Your task to perform on an android device: toggle wifi Image 0: 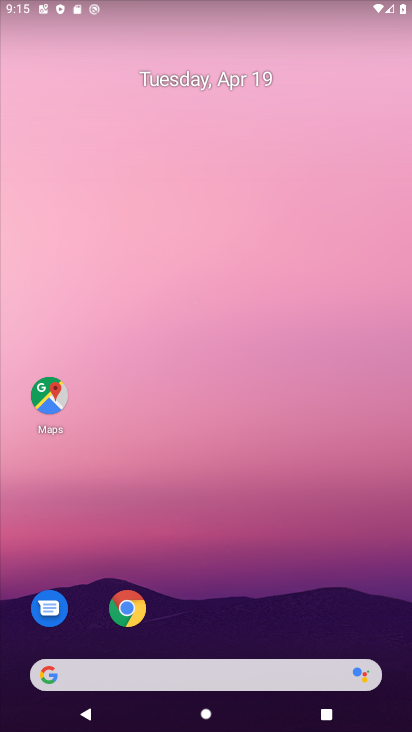
Step 0: drag from (392, 643) to (323, 71)
Your task to perform on an android device: toggle wifi Image 1: 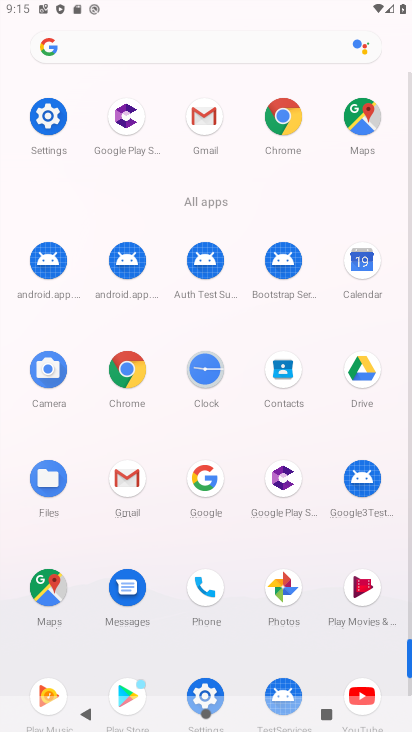
Step 1: click (408, 686)
Your task to perform on an android device: toggle wifi Image 2: 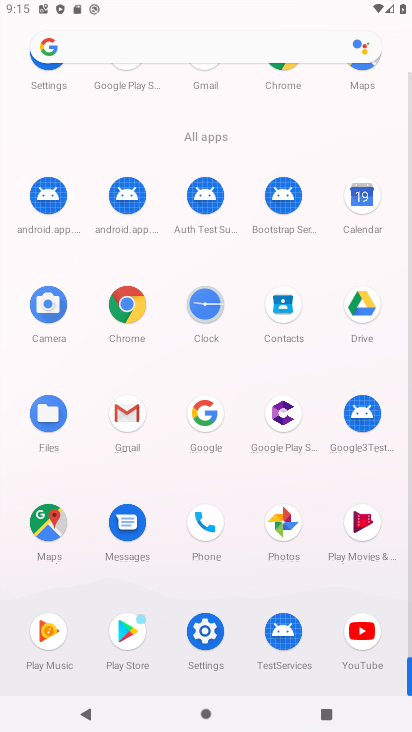
Step 2: click (204, 629)
Your task to perform on an android device: toggle wifi Image 3: 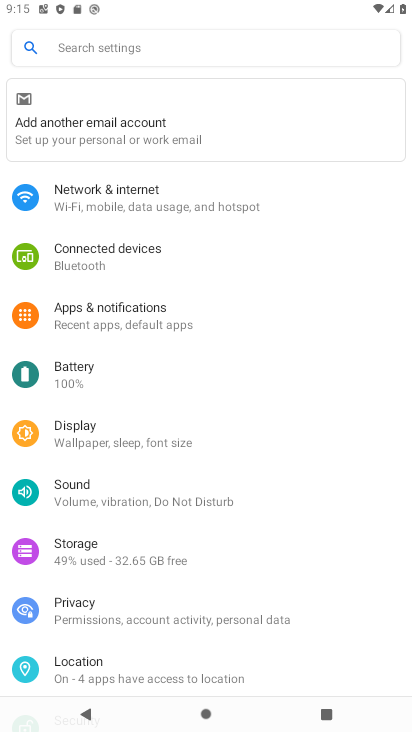
Step 3: click (125, 191)
Your task to perform on an android device: toggle wifi Image 4: 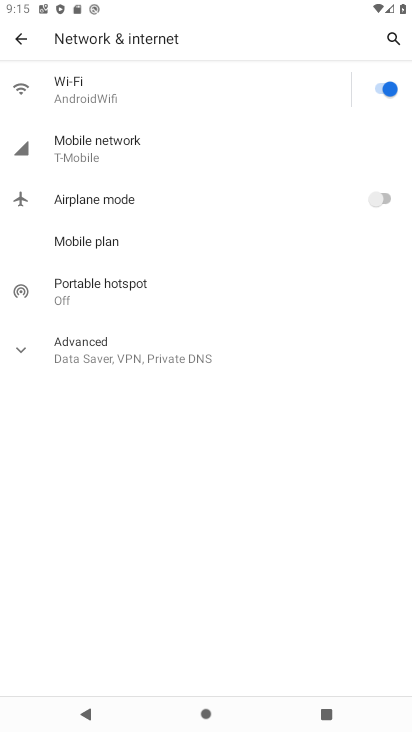
Step 4: click (375, 80)
Your task to perform on an android device: toggle wifi Image 5: 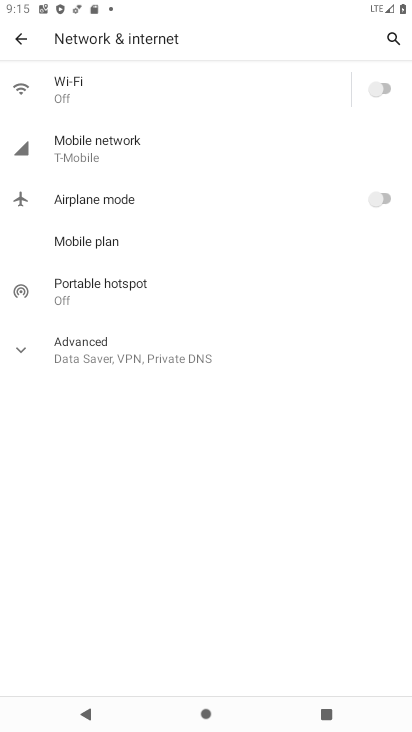
Step 5: task complete